Your task to perform on an android device: Set the phone to "Do not disturb". Image 0: 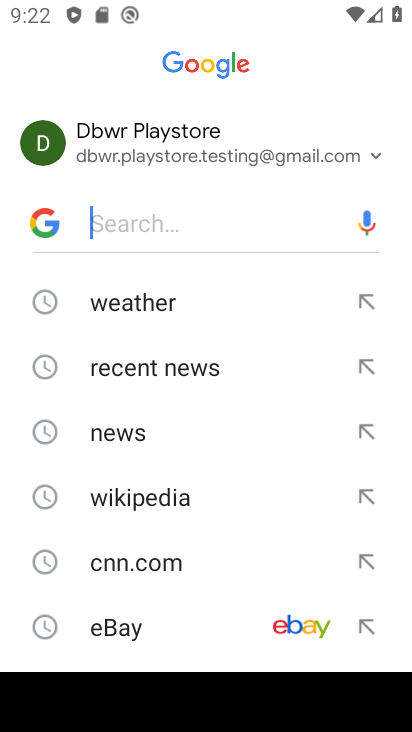
Step 0: press home button
Your task to perform on an android device: Set the phone to "Do not disturb". Image 1: 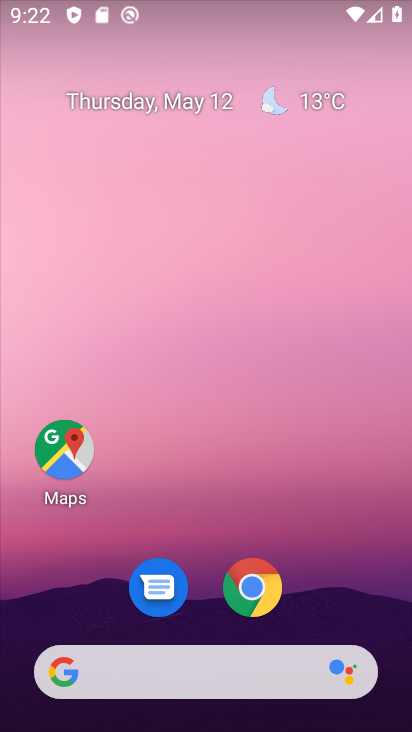
Step 1: drag from (374, 592) to (400, 17)
Your task to perform on an android device: Set the phone to "Do not disturb". Image 2: 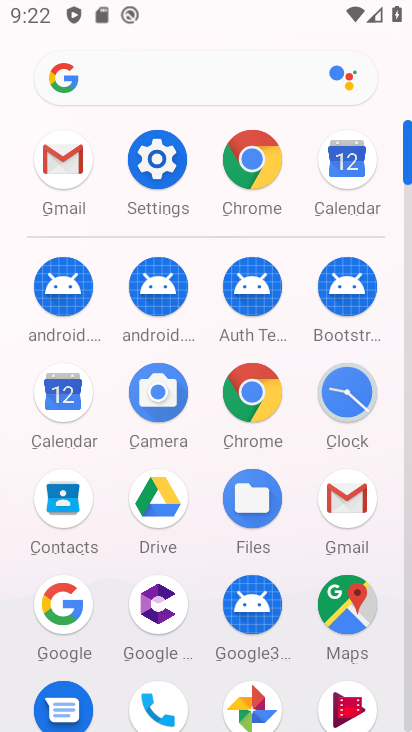
Step 2: click (169, 146)
Your task to perform on an android device: Set the phone to "Do not disturb". Image 3: 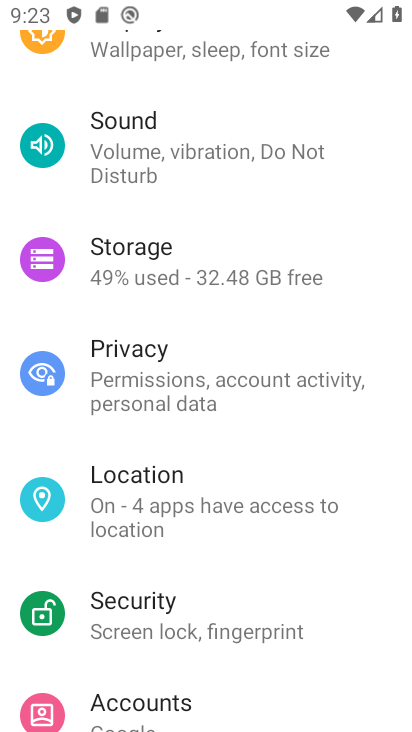
Step 3: drag from (229, 570) to (306, 226)
Your task to perform on an android device: Set the phone to "Do not disturb". Image 4: 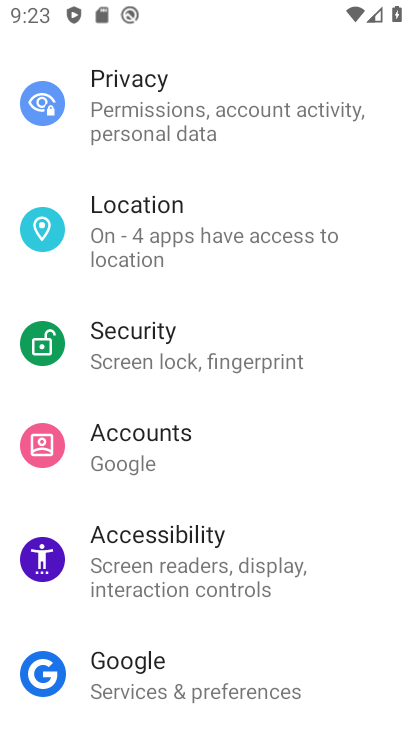
Step 4: drag from (231, 578) to (210, 144)
Your task to perform on an android device: Set the phone to "Do not disturb". Image 5: 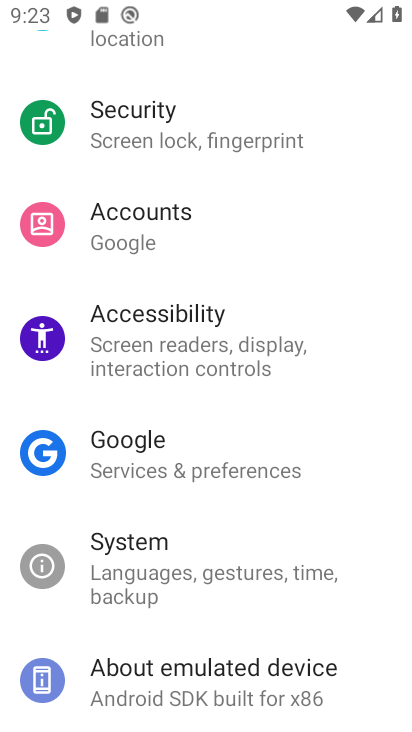
Step 5: drag from (223, 497) to (212, 212)
Your task to perform on an android device: Set the phone to "Do not disturb". Image 6: 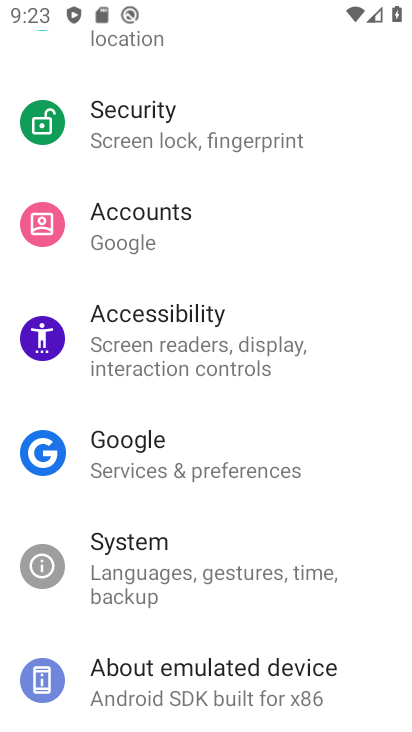
Step 6: drag from (223, 176) to (154, 603)
Your task to perform on an android device: Set the phone to "Do not disturb". Image 7: 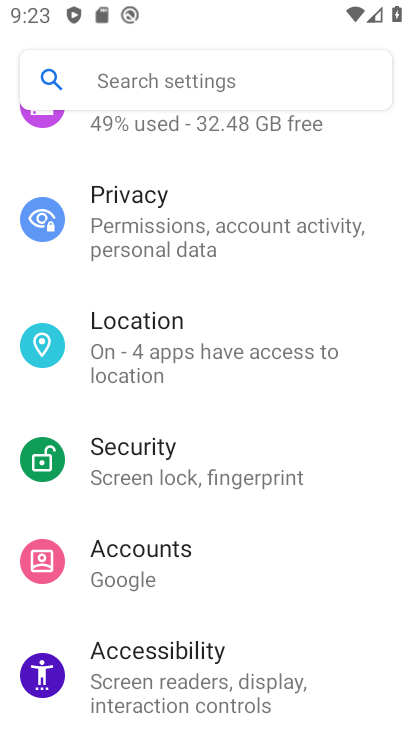
Step 7: drag from (203, 213) to (155, 609)
Your task to perform on an android device: Set the phone to "Do not disturb". Image 8: 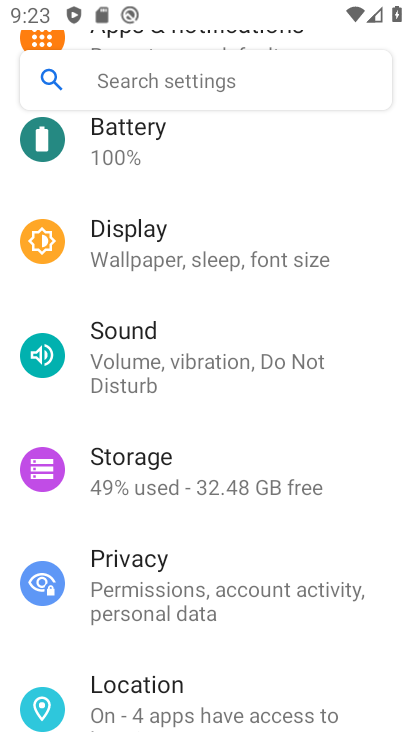
Step 8: click (176, 345)
Your task to perform on an android device: Set the phone to "Do not disturb". Image 9: 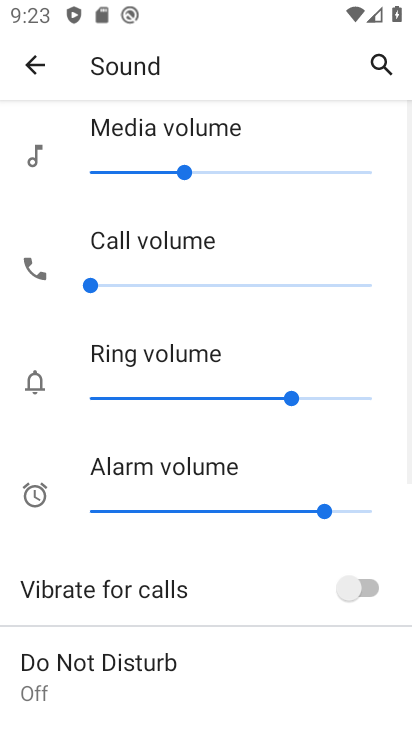
Step 9: task complete